Your task to perform on an android device: Open Google Chrome and click the shortcut for Amazon.com Image 0: 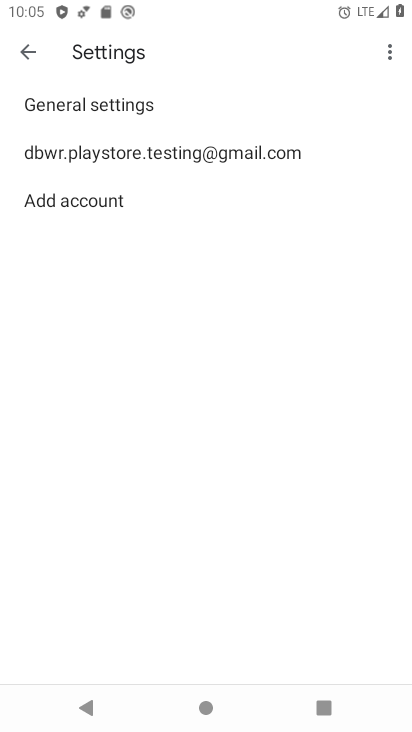
Step 0: press home button
Your task to perform on an android device: Open Google Chrome and click the shortcut for Amazon.com Image 1: 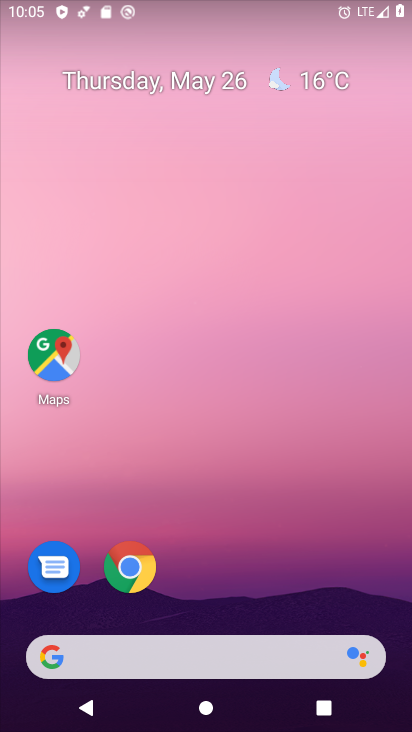
Step 1: click (119, 553)
Your task to perform on an android device: Open Google Chrome and click the shortcut for Amazon.com Image 2: 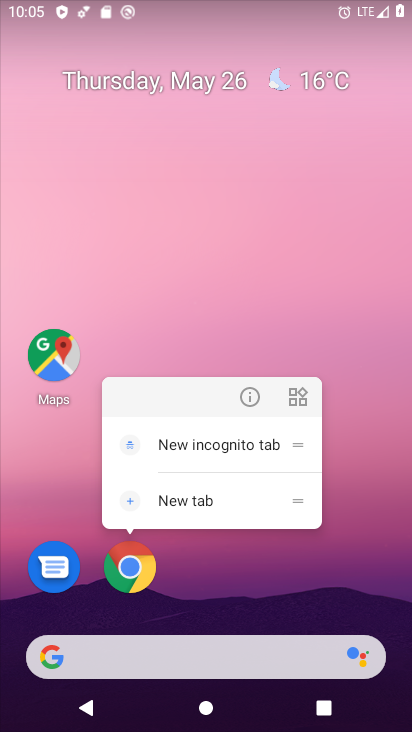
Step 2: press back button
Your task to perform on an android device: Open Google Chrome and click the shortcut for Amazon.com Image 3: 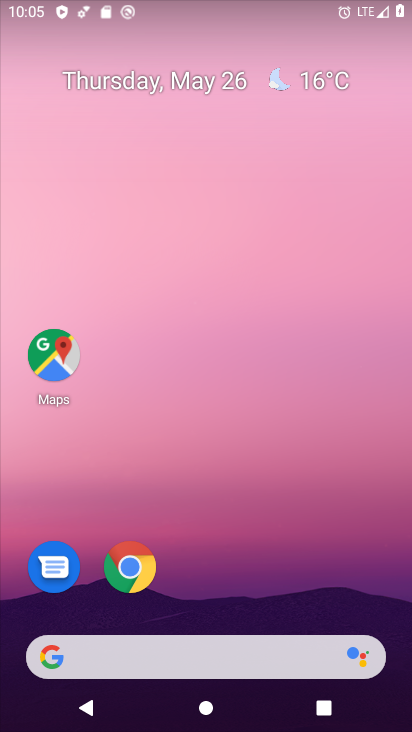
Step 3: click (122, 567)
Your task to perform on an android device: Open Google Chrome and click the shortcut for Amazon.com Image 4: 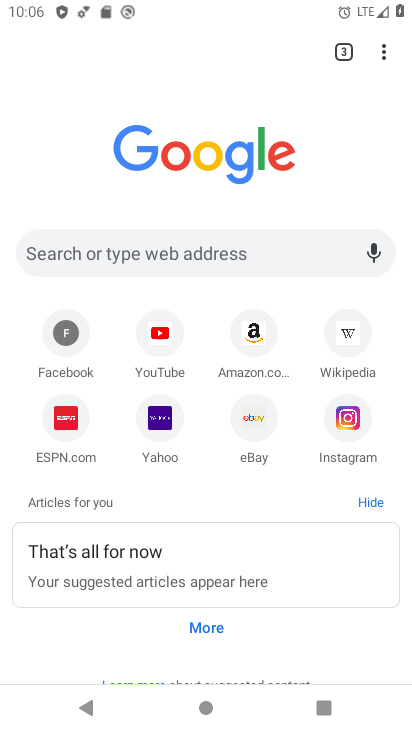
Step 4: click (254, 342)
Your task to perform on an android device: Open Google Chrome and click the shortcut for Amazon.com Image 5: 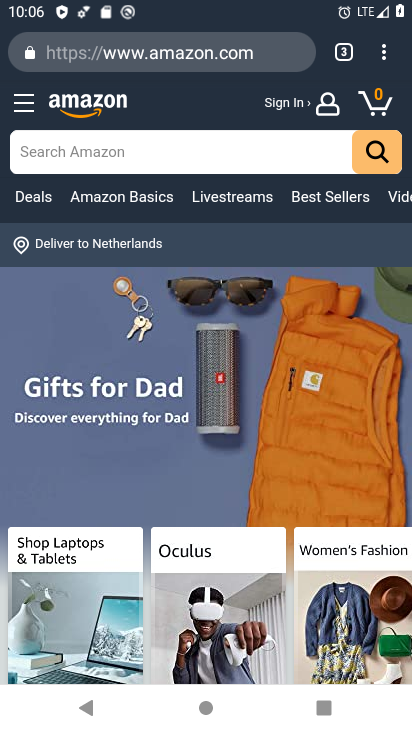
Step 5: task complete